Your task to perform on an android device: Go to Yahoo.com Image 0: 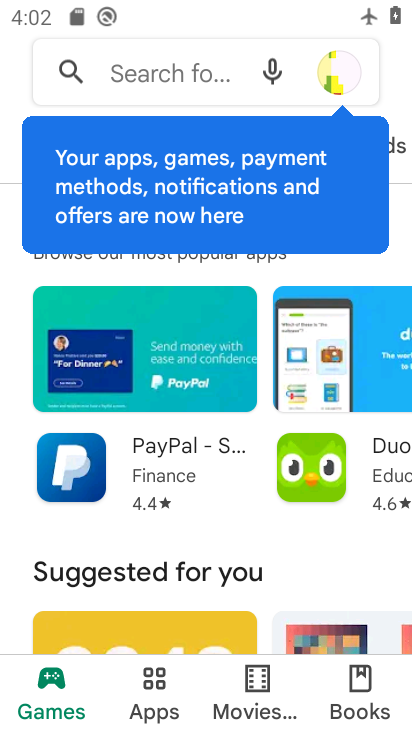
Step 0: press home button
Your task to perform on an android device: Go to Yahoo.com Image 1: 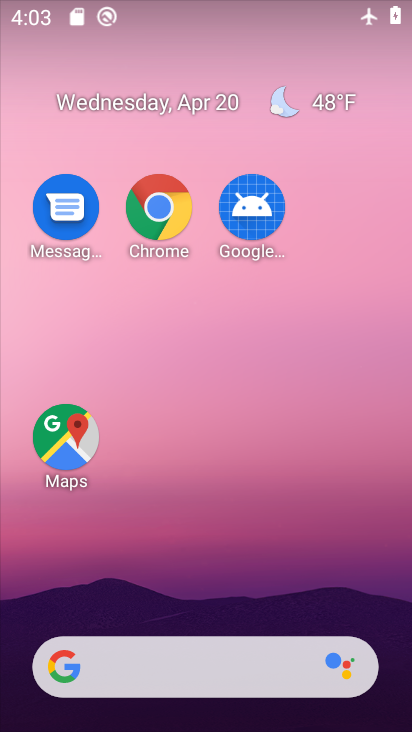
Step 1: click (170, 228)
Your task to perform on an android device: Go to Yahoo.com Image 2: 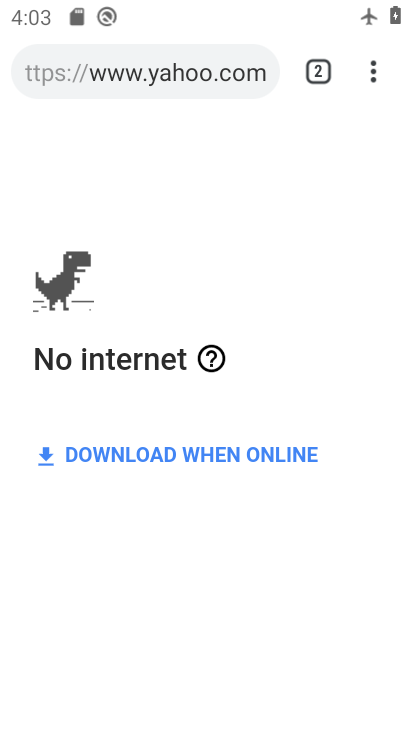
Step 2: task complete